Your task to perform on an android device: Open settings Image 0: 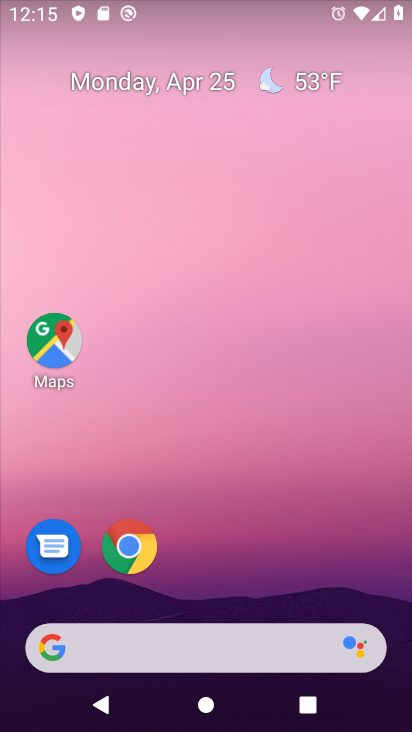
Step 0: drag from (222, 555) to (254, 77)
Your task to perform on an android device: Open settings Image 1: 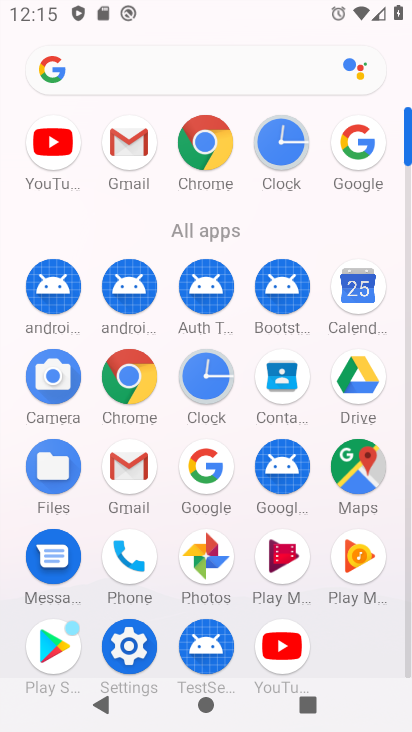
Step 1: click (122, 627)
Your task to perform on an android device: Open settings Image 2: 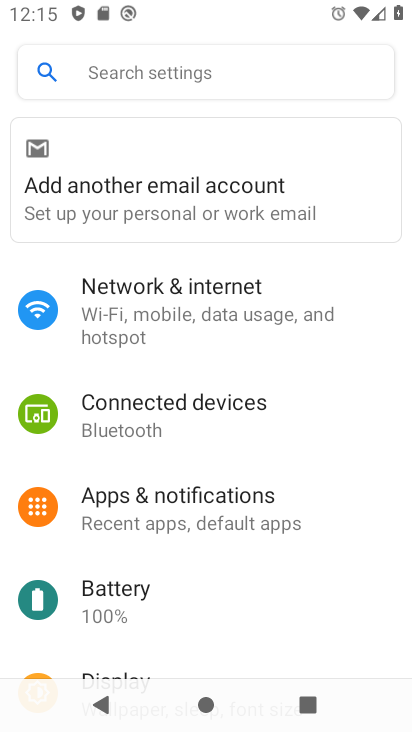
Step 2: task complete